Your task to perform on an android device: Open the phone app and click the voicemail tab. Image 0: 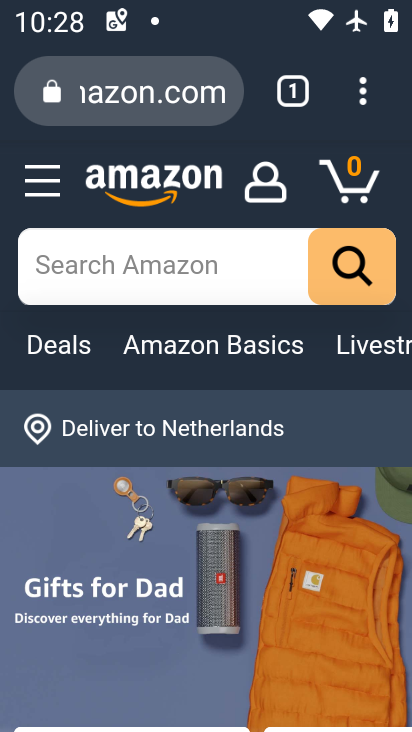
Step 0: press home button
Your task to perform on an android device: Open the phone app and click the voicemail tab. Image 1: 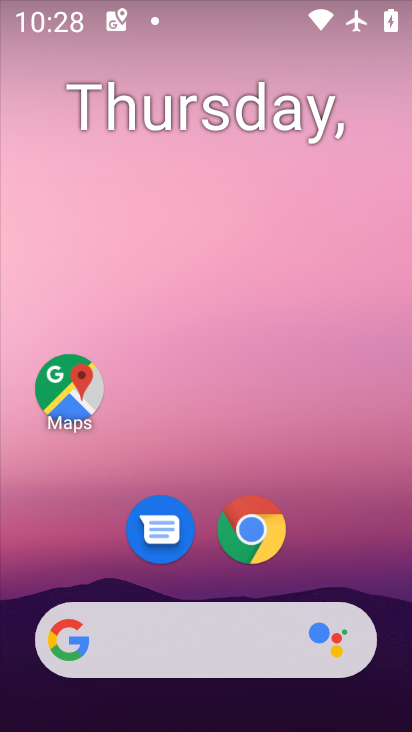
Step 1: drag from (212, 577) to (249, 67)
Your task to perform on an android device: Open the phone app and click the voicemail tab. Image 2: 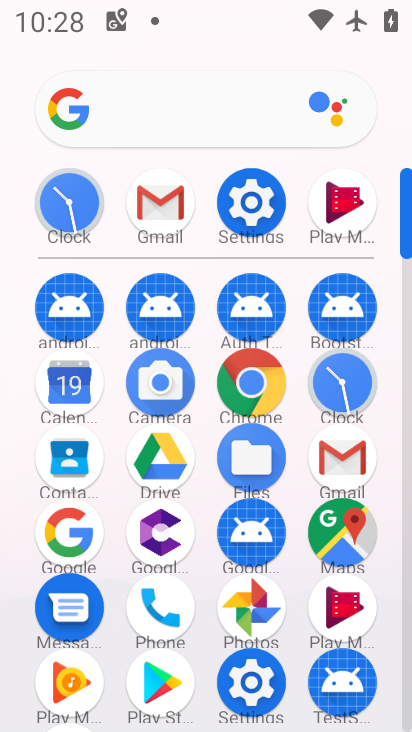
Step 2: click (150, 614)
Your task to perform on an android device: Open the phone app and click the voicemail tab. Image 3: 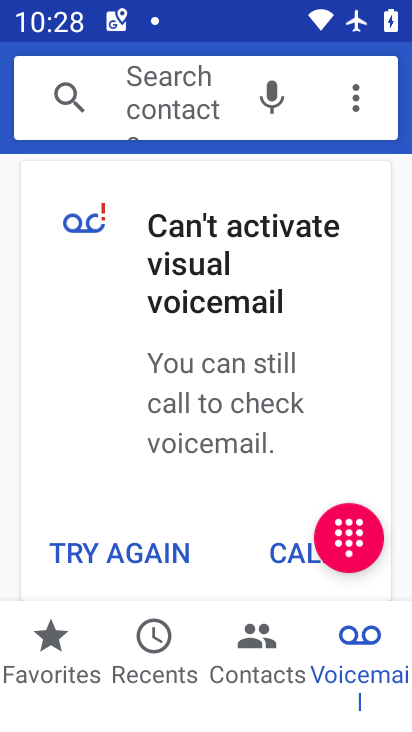
Step 3: click (335, 654)
Your task to perform on an android device: Open the phone app and click the voicemail tab. Image 4: 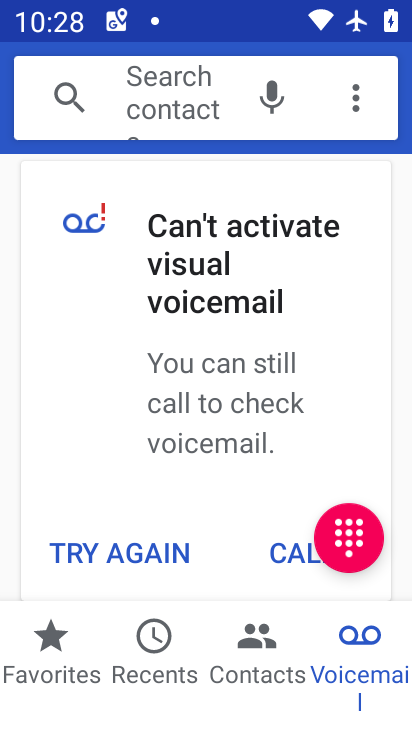
Step 4: task complete